Your task to perform on an android device: refresh tabs in the chrome app Image 0: 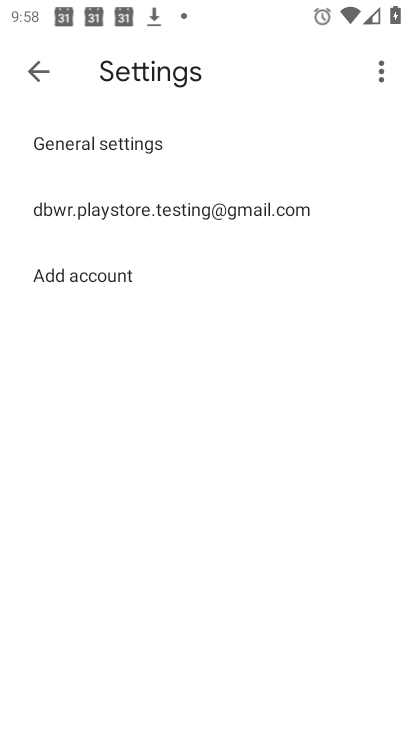
Step 0: press home button
Your task to perform on an android device: refresh tabs in the chrome app Image 1: 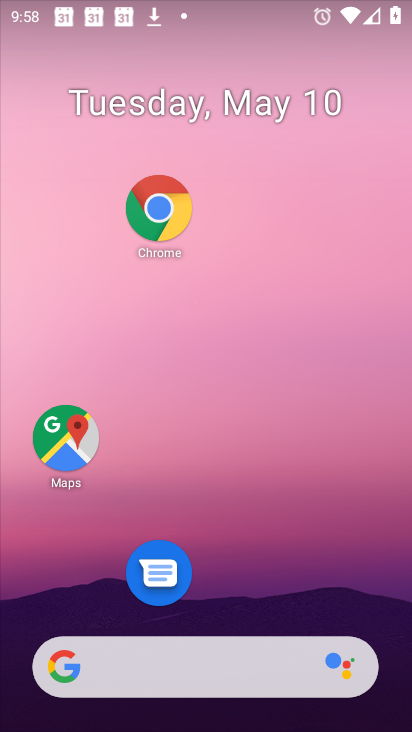
Step 1: drag from (272, 680) to (354, 153)
Your task to perform on an android device: refresh tabs in the chrome app Image 2: 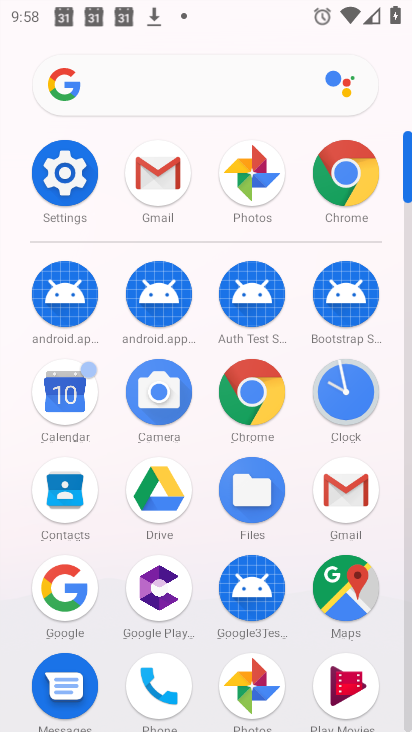
Step 2: click (249, 392)
Your task to perform on an android device: refresh tabs in the chrome app Image 3: 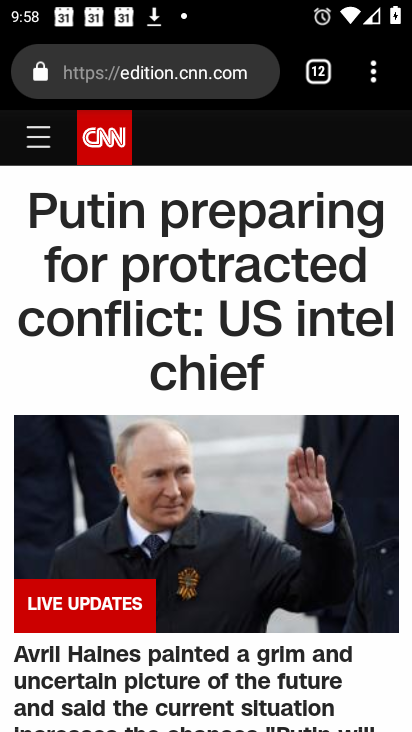
Step 3: click (369, 84)
Your task to perform on an android device: refresh tabs in the chrome app Image 4: 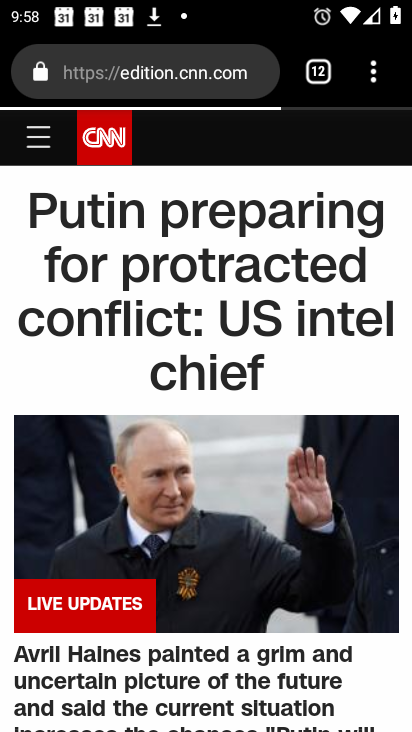
Step 4: click (372, 86)
Your task to perform on an android device: refresh tabs in the chrome app Image 5: 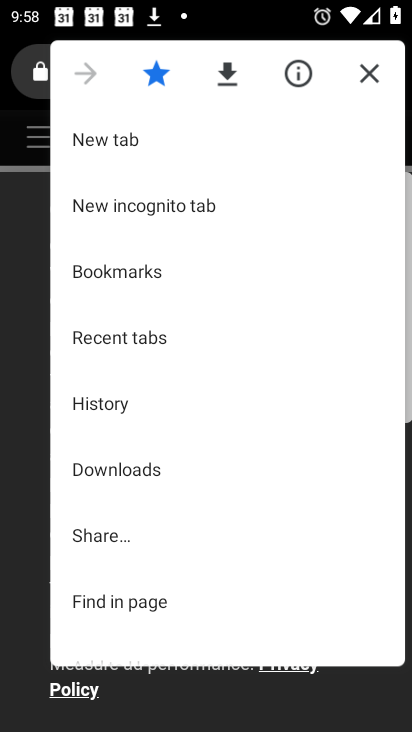
Step 5: click (366, 80)
Your task to perform on an android device: refresh tabs in the chrome app Image 6: 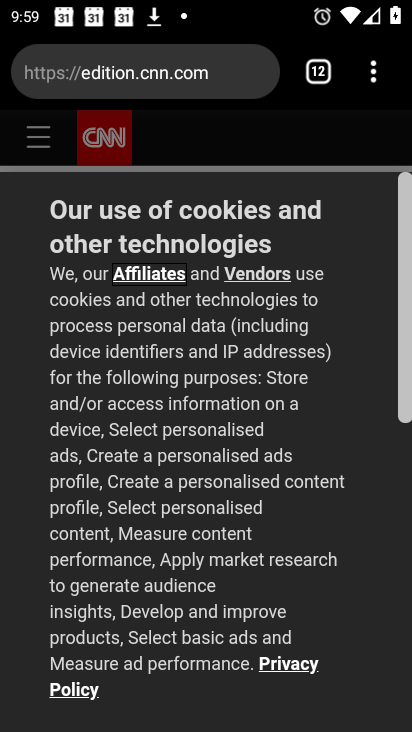
Step 6: click (372, 89)
Your task to perform on an android device: refresh tabs in the chrome app Image 7: 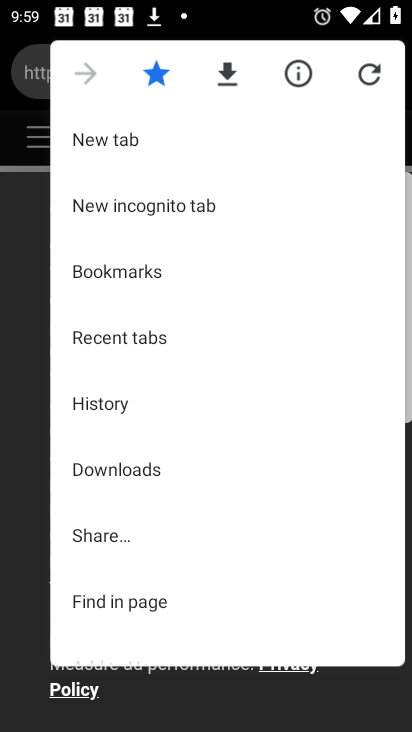
Step 7: click (220, 454)
Your task to perform on an android device: refresh tabs in the chrome app Image 8: 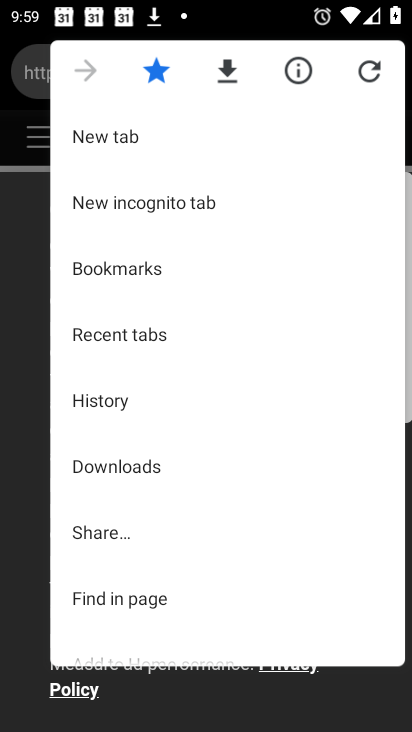
Step 8: click (152, 329)
Your task to perform on an android device: refresh tabs in the chrome app Image 9: 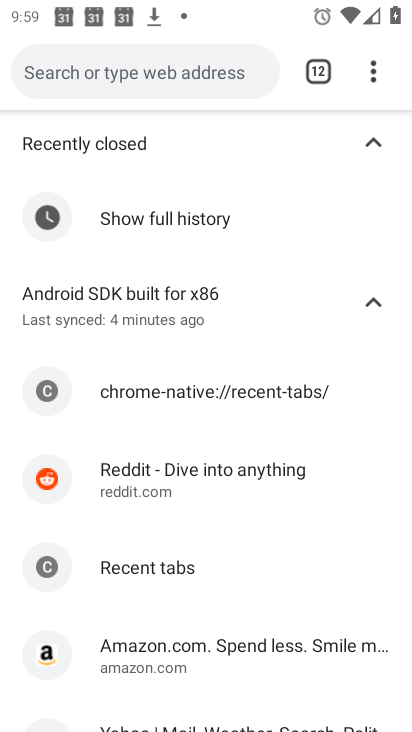
Step 9: click (153, 389)
Your task to perform on an android device: refresh tabs in the chrome app Image 10: 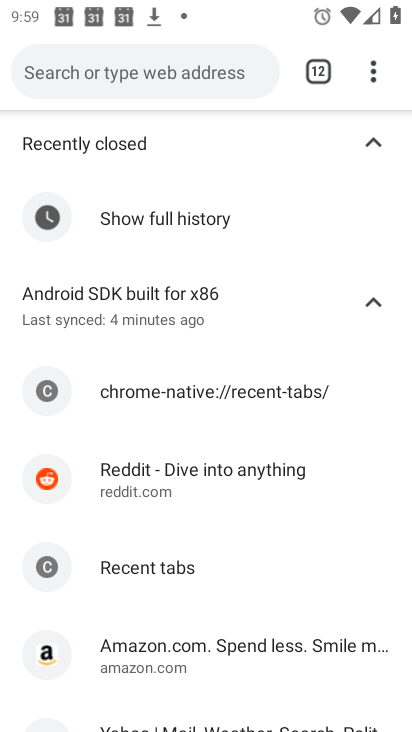
Step 10: task complete